Your task to perform on an android device: star an email in the gmail app Image 0: 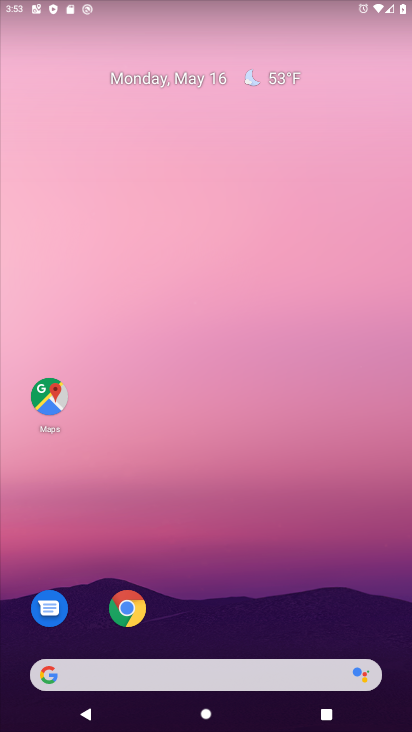
Step 0: drag from (211, 564) to (186, 115)
Your task to perform on an android device: star an email in the gmail app Image 1: 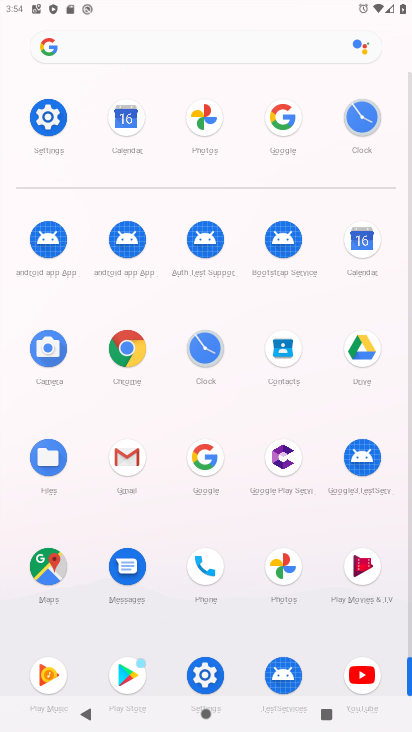
Step 1: click (122, 455)
Your task to perform on an android device: star an email in the gmail app Image 2: 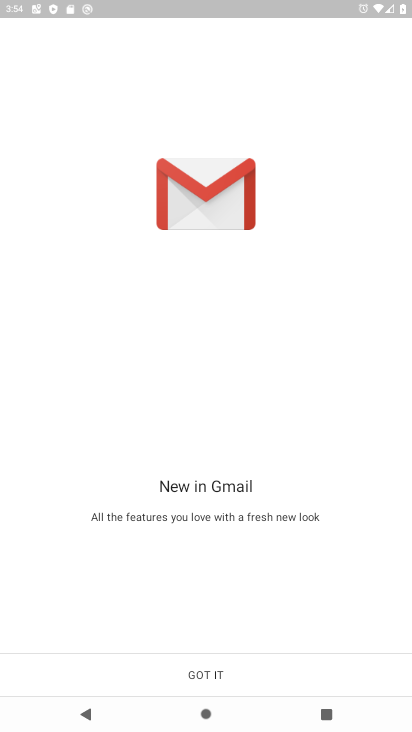
Step 2: click (205, 666)
Your task to perform on an android device: star an email in the gmail app Image 3: 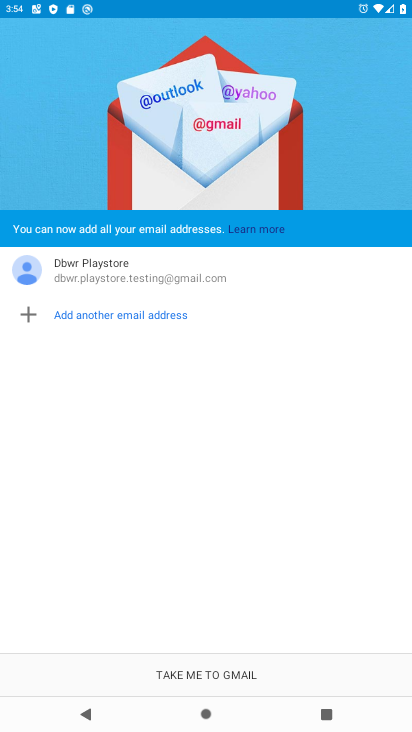
Step 3: click (224, 669)
Your task to perform on an android device: star an email in the gmail app Image 4: 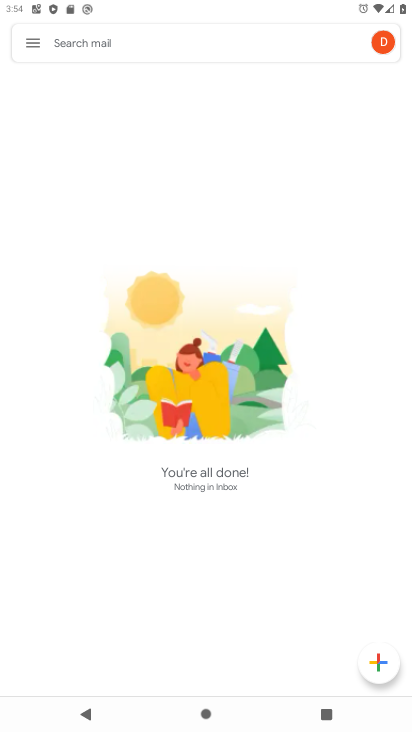
Step 4: click (31, 44)
Your task to perform on an android device: star an email in the gmail app Image 5: 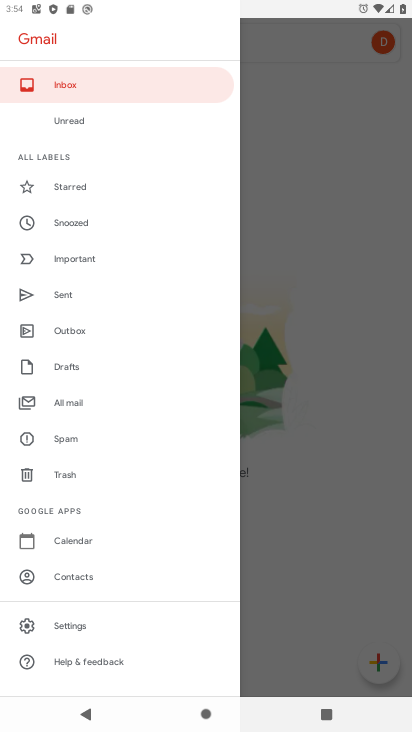
Step 5: click (80, 406)
Your task to perform on an android device: star an email in the gmail app Image 6: 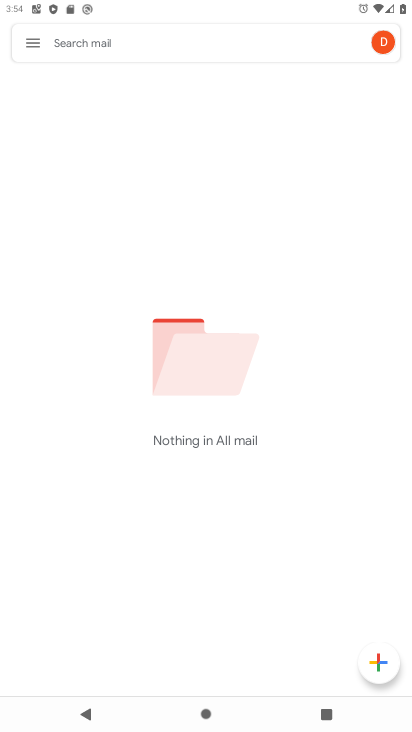
Step 6: task complete